Your task to perform on an android device: Play the last video I watched on Youtube Image 0: 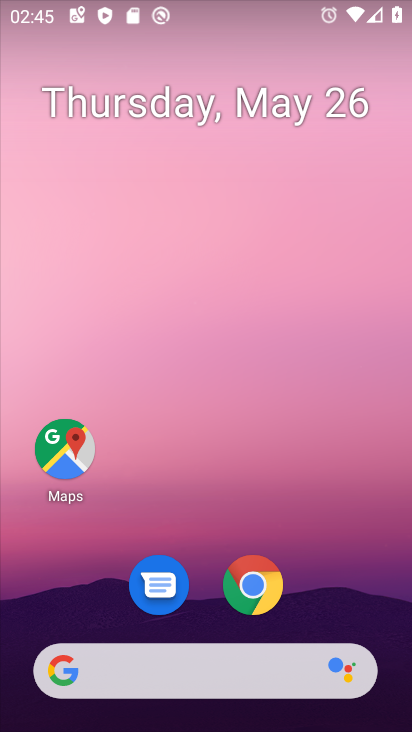
Step 0: drag from (257, 494) to (211, 46)
Your task to perform on an android device: Play the last video I watched on Youtube Image 1: 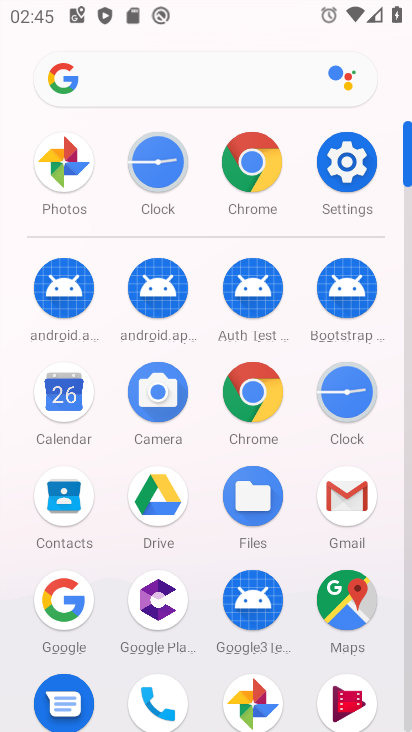
Step 1: drag from (302, 517) to (292, 172)
Your task to perform on an android device: Play the last video I watched on Youtube Image 2: 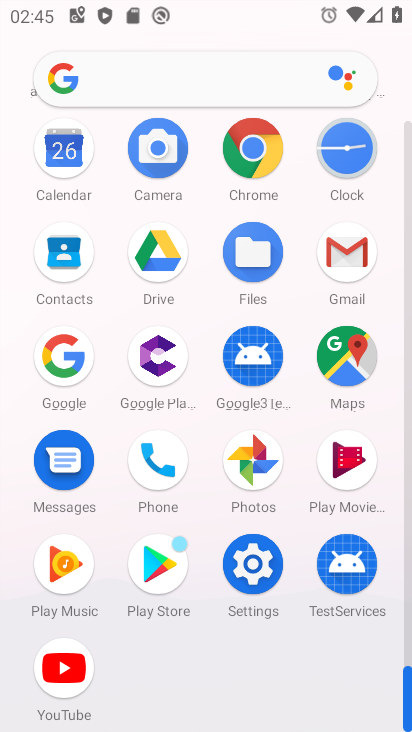
Step 2: click (66, 658)
Your task to perform on an android device: Play the last video I watched on Youtube Image 3: 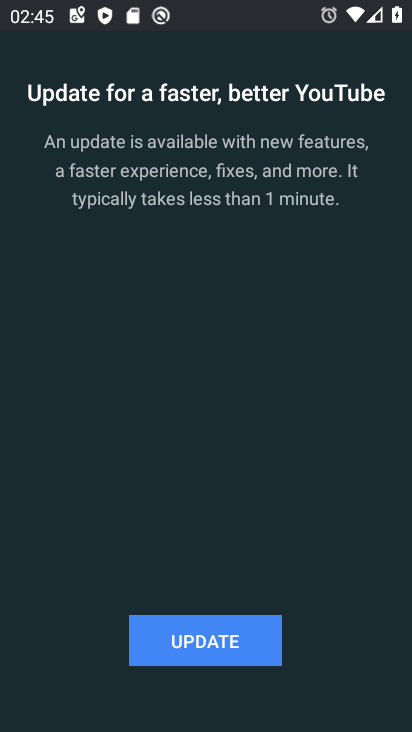
Step 3: click (253, 627)
Your task to perform on an android device: Play the last video I watched on Youtube Image 4: 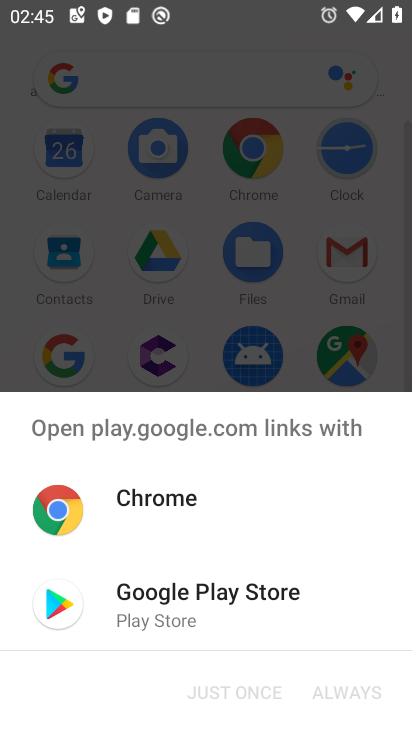
Step 4: click (222, 581)
Your task to perform on an android device: Play the last video I watched on Youtube Image 5: 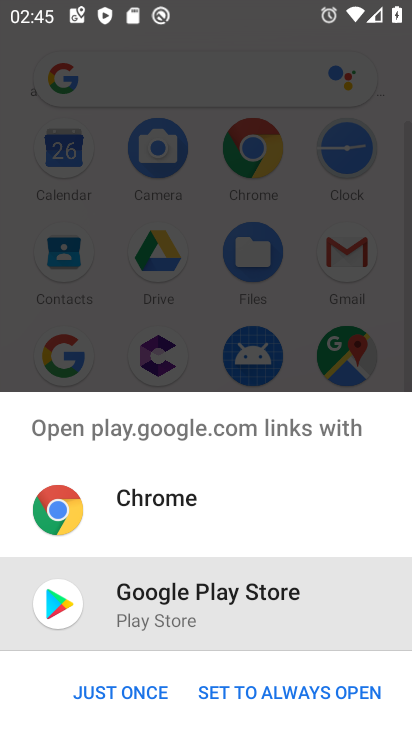
Step 5: click (144, 684)
Your task to perform on an android device: Play the last video I watched on Youtube Image 6: 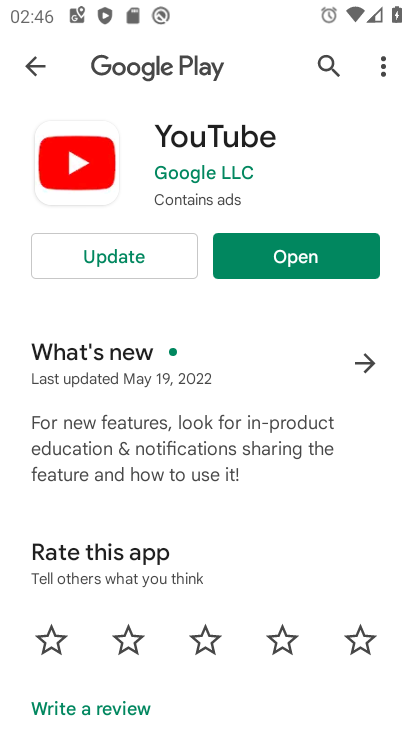
Step 6: click (144, 245)
Your task to perform on an android device: Play the last video I watched on Youtube Image 7: 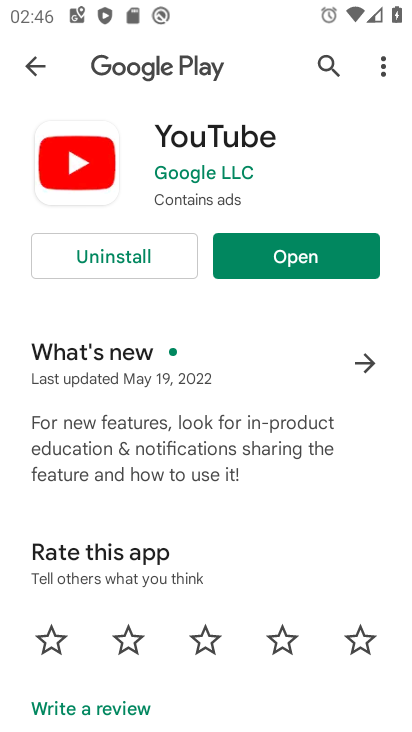
Step 7: click (347, 253)
Your task to perform on an android device: Play the last video I watched on Youtube Image 8: 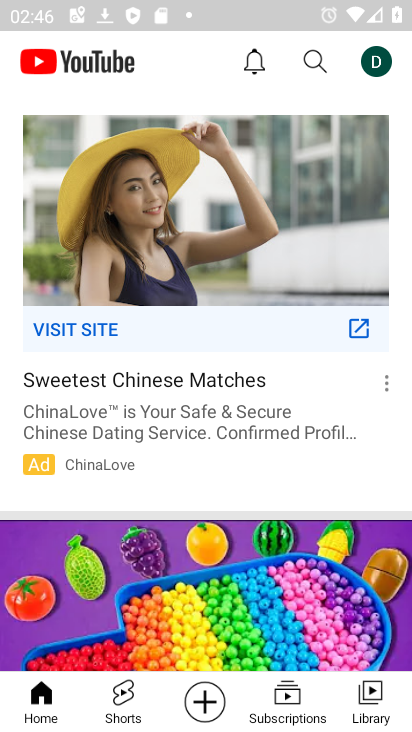
Step 8: click (366, 687)
Your task to perform on an android device: Play the last video I watched on Youtube Image 9: 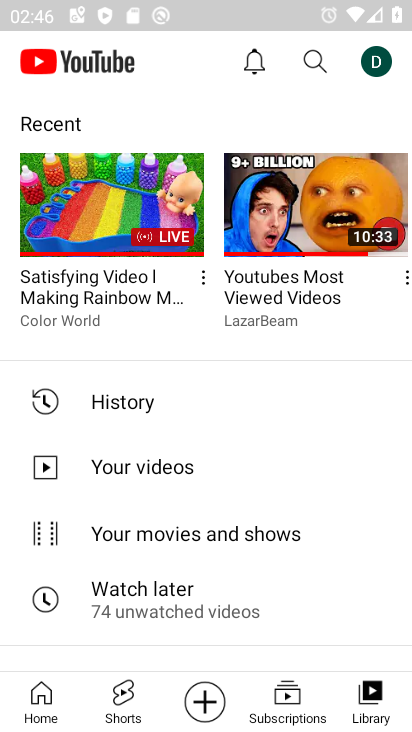
Step 9: click (122, 396)
Your task to perform on an android device: Play the last video I watched on Youtube Image 10: 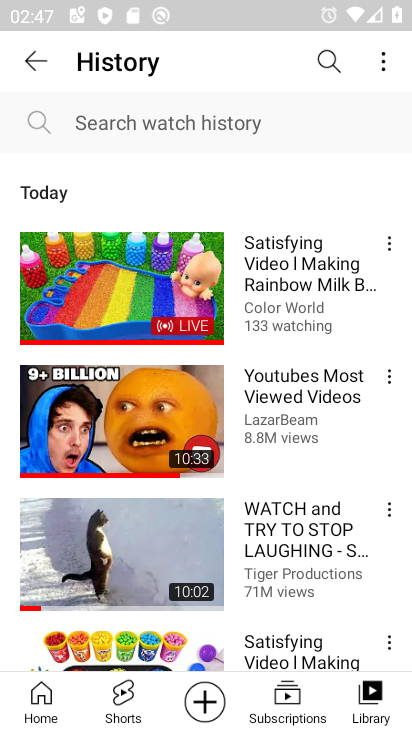
Step 10: click (134, 288)
Your task to perform on an android device: Play the last video I watched on Youtube Image 11: 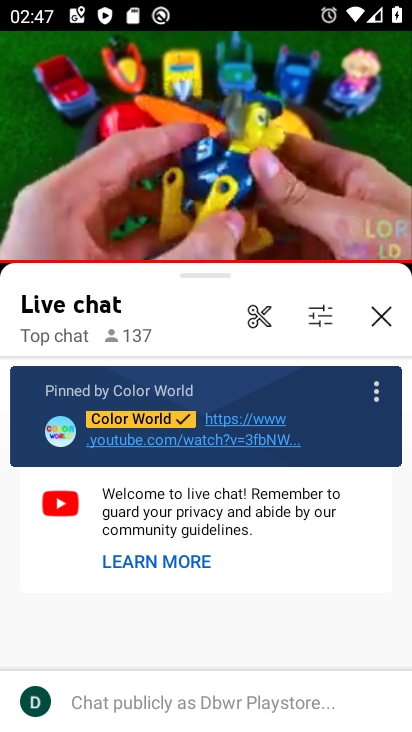
Step 11: task complete